Your task to perform on an android device: turn on javascript in the chrome app Image 0: 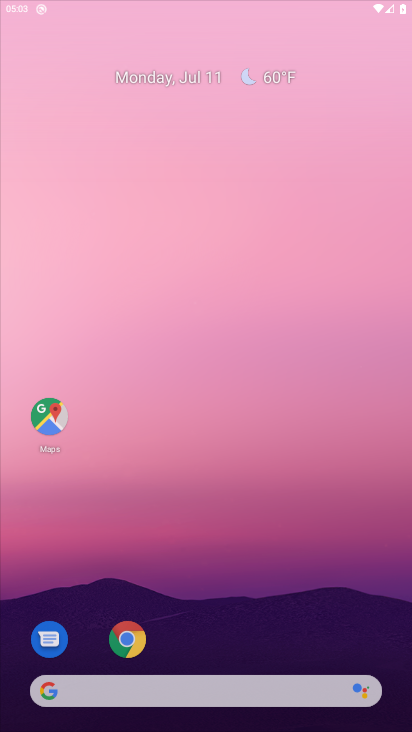
Step 0: drag from (193, 669) to (199, 197)
Your task to perform on an android device: turn on javascript in the chrome app Image 1: 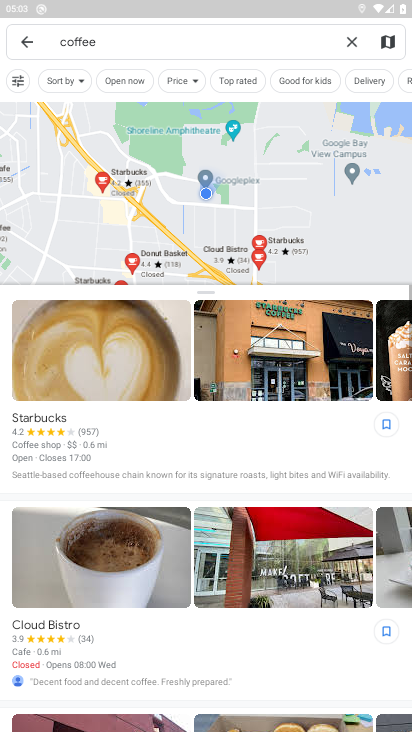
Step 1: press home button
Your task to perform on an android device: turn on javascript in the chrome app Image 2: 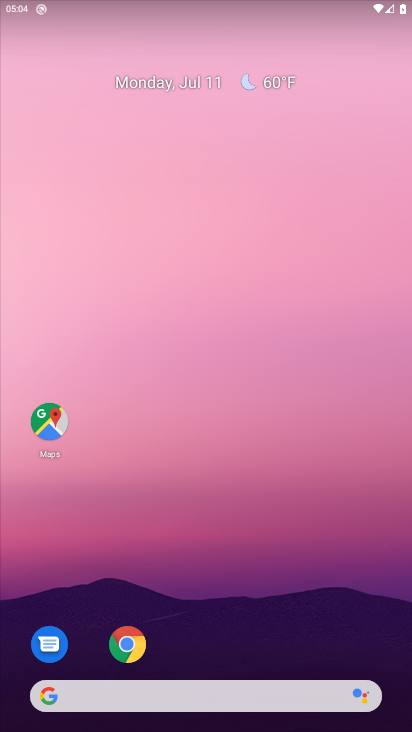
Step 2: click (141, 651)
Your task to perform on an android device: turn on javascript in the chrome app Image 3: 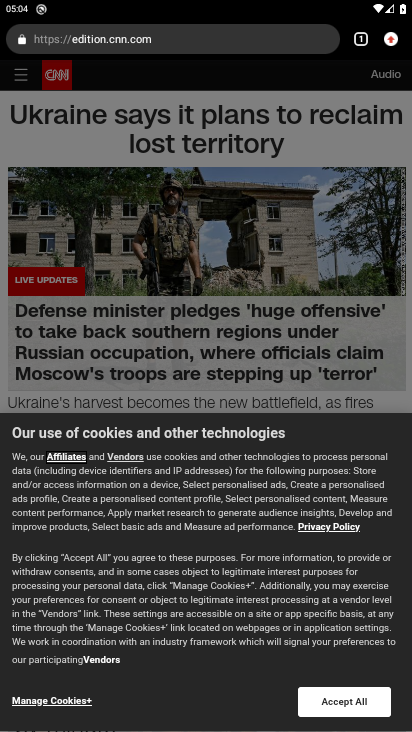
Step 3: click (392, 50)
Your task to perform on an android device: turn on javascript in the chrome app Image 4: 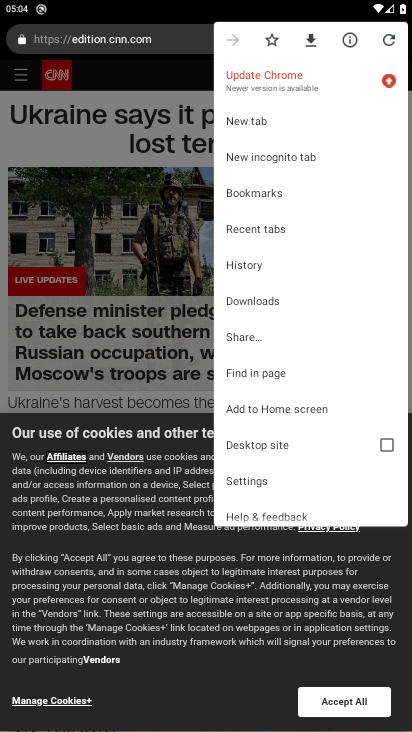
Step 4: click (268, 480)
Your task to perform on an android device: turn on javascript in the chrome app Image 5: 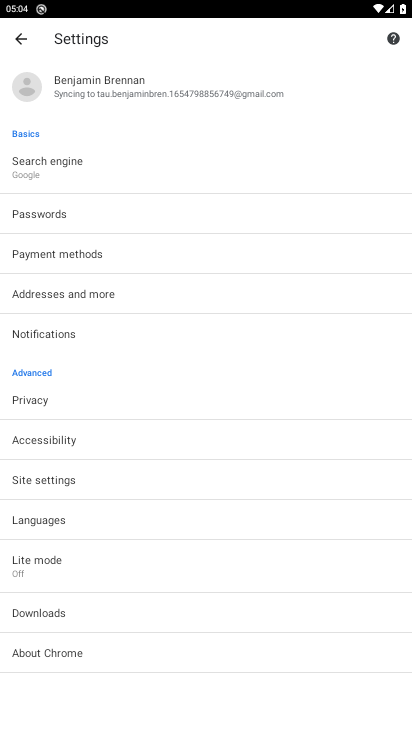
Step 5: click (34, 478)
Your task to perform on an android device: turn on javascript in the chrome app Image 6: 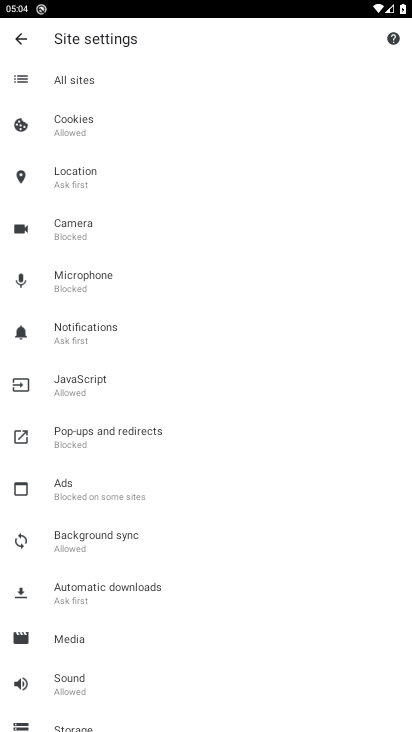
Step 6: click (89, 386)
Your task to perform on an android device: turn on javascript in the chrome app Image 7: 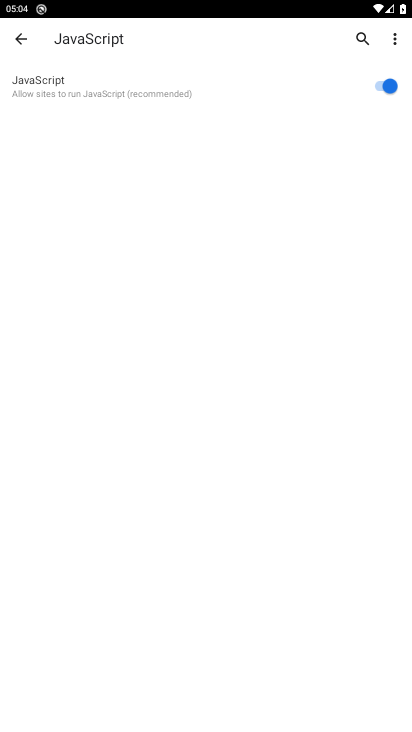
Step 7: task complete